Your task to perform on an android device: change notification settings in the gmail app Image 0: 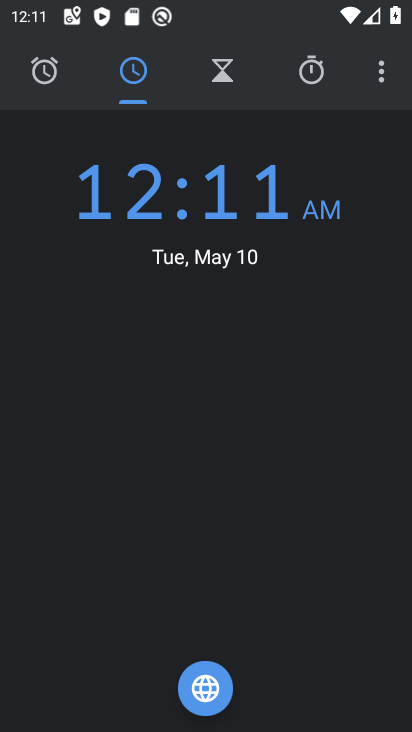
Step 0: click (258, 406)
Your task to perform on an android device: change notification settings in the gmail app Image 1: 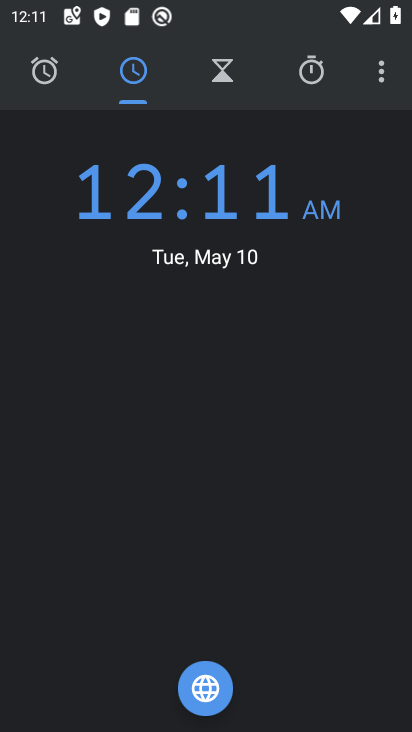
Step 1: click (379, 67)
Your task to perform on an android device: change notification settings in the gmail app Image 2: 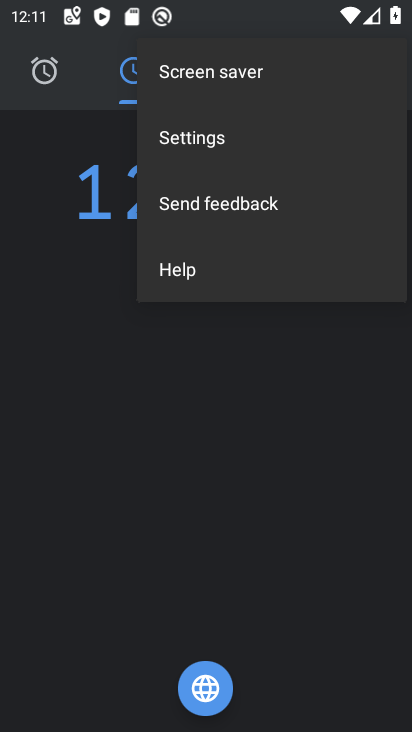
Step 2: press home button
Your task to perform on an android device: change notification settings in the gmail app Image 3: 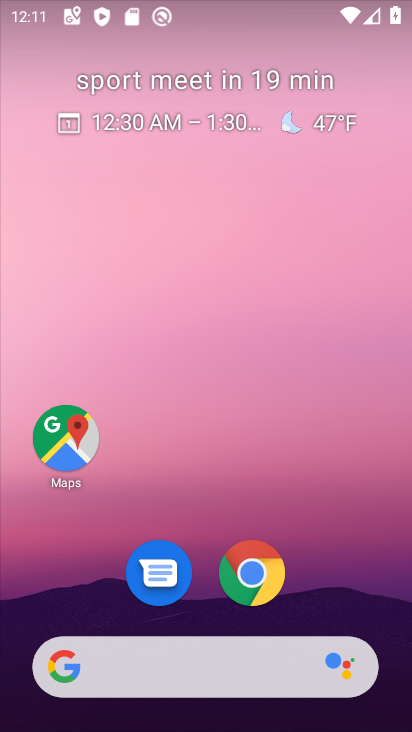
Step 3: drag from (215, 600) to (226, 345)
Your task to perform on an android device: change notification settings in the gmail app Image 4: 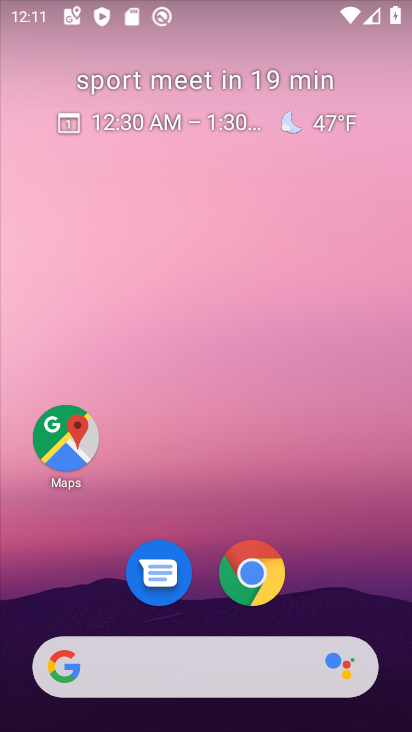
Step 4: drag from (210, 626) to (175, 192)
Your task to perform on an android device: change notification settings in the gmail app Image 5: 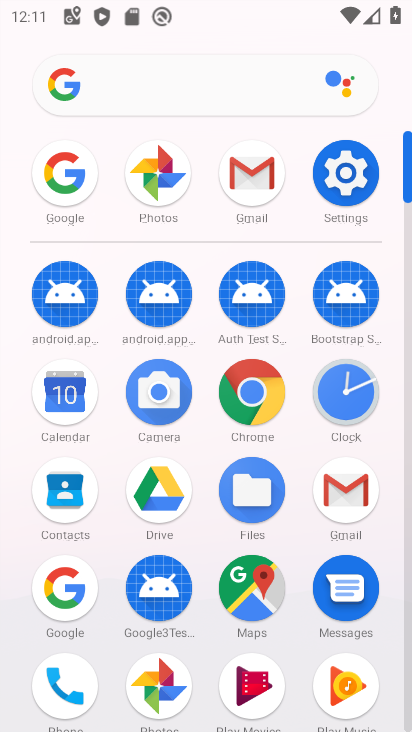
Step 5: click (347, 510)
Your task to perform on an android device: change notification settings in the gmail app Image 6: 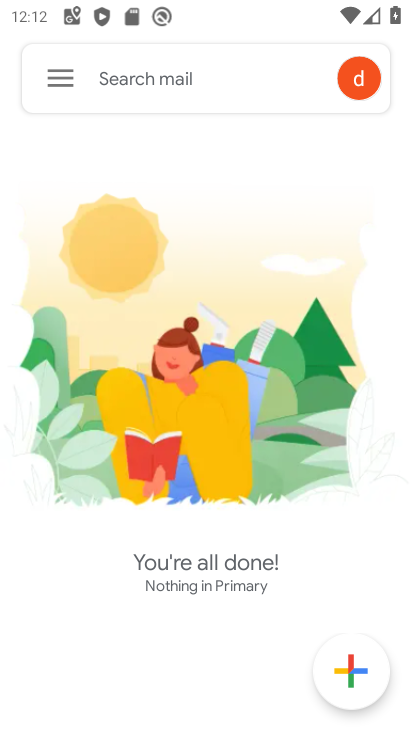
Step 6: click (67, 94)
Your task to perform on an android device: change notification settings in the gmail app Image 7: 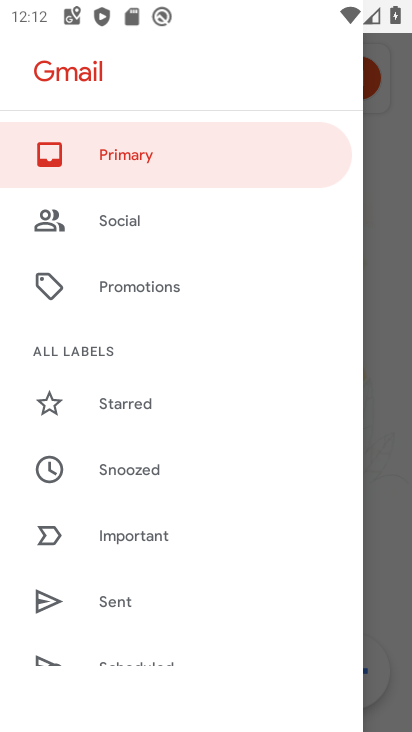
Step 7: drag from (139, 639) to (150, 293)
Your task to perform on an android device: change notification settings in the gmail app Image 8: 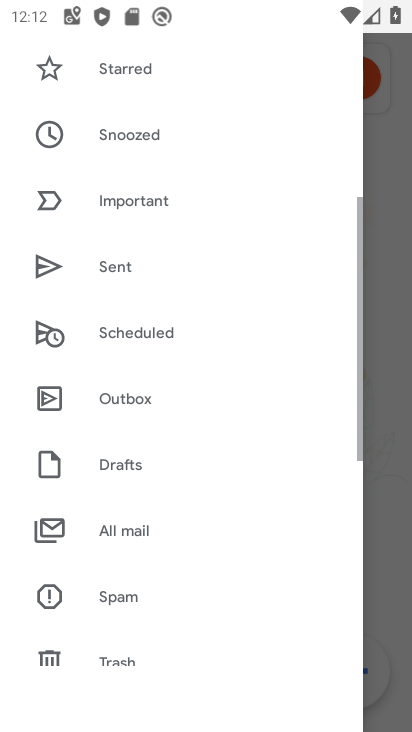
Step 8: drag from (134, 552) to (247, 197)
Your task to perform on an android device: change notification settings in the gmail app Image 9: 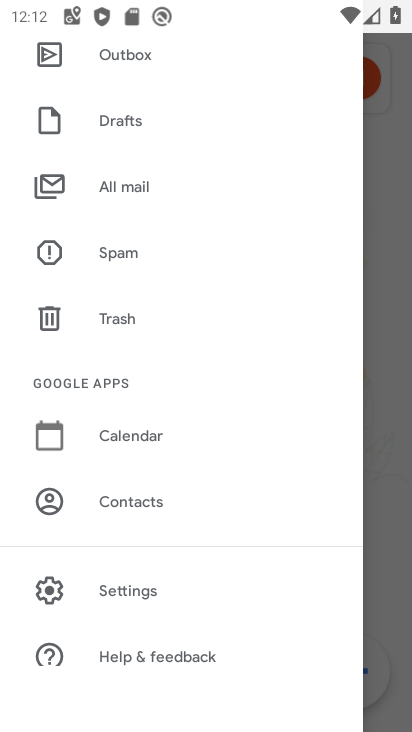
Step 9: click (134, 582)
Your task to perform on an android device: change notification settings in the gmail app Image 10: 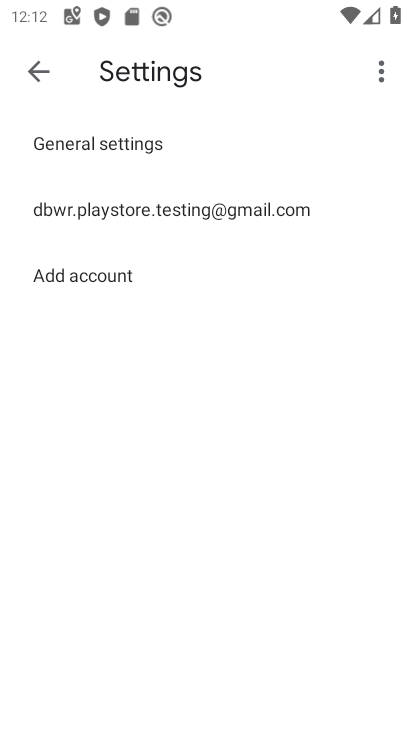
Step 10: click (135, 218)
Your task to perform on an android device: change notification settings in the gmail app Image 11: 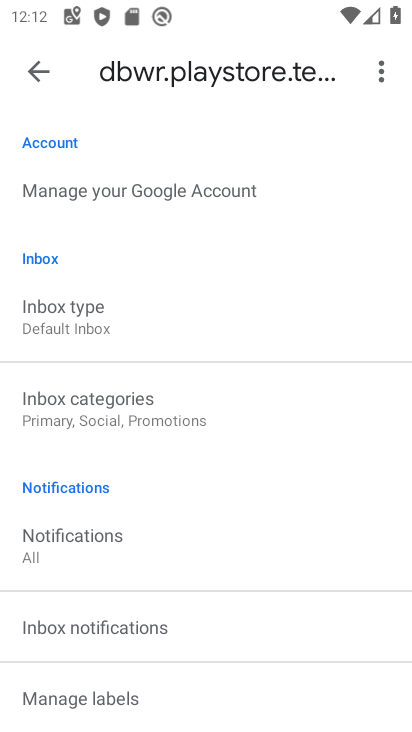
Step 11: drag from (165, 607) to (145, 127)
Your task to perform on an android device: change notification settings in the gmail app Image 12: 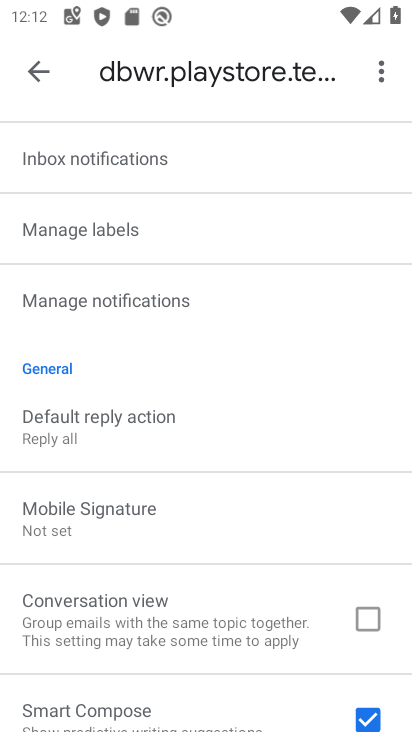
Step 12: click (119, 311)
Your task to perform on an android device: change notification settings in the gmail app Image 13: 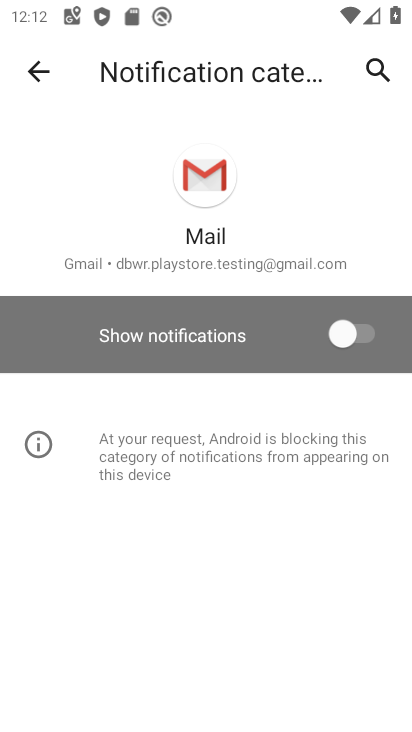
Step 13: click (351, 324)
Your task to perform on an android device: change notification settings in the gmail app Image 14: 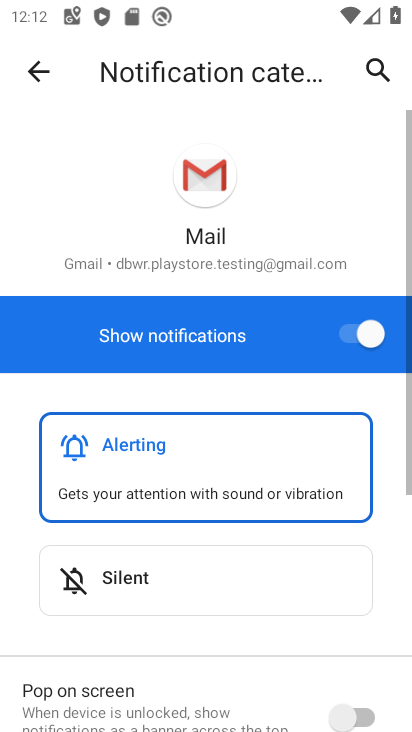
Step 14: task complete